Your task to perform on an android device: manage bookmarks in the chrome app Image 0: 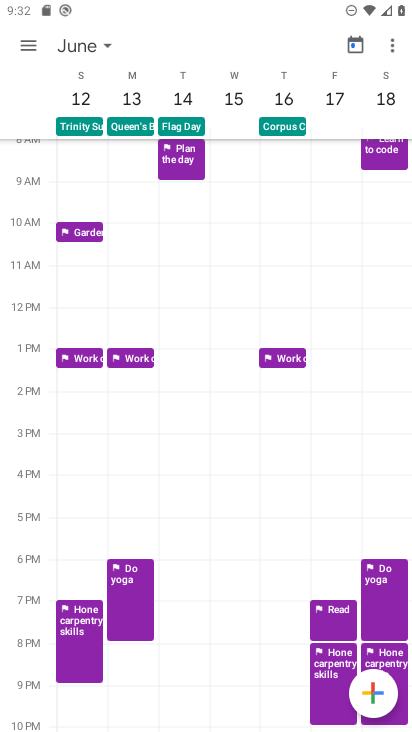
Step 0: press home button
Your task to perform on an android device: manage bookmarks in the chrome app Image 1: 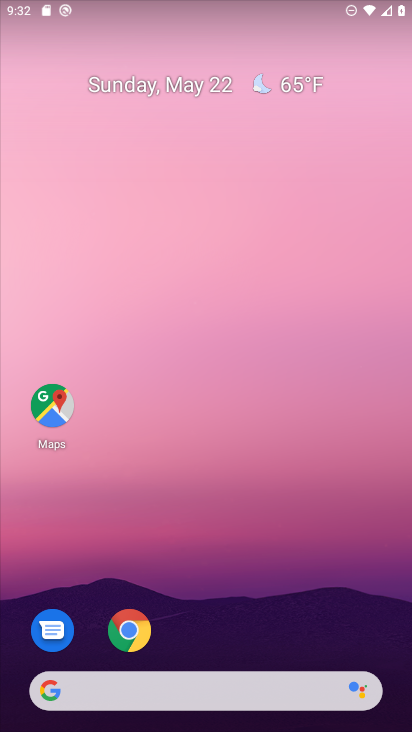
Step 1: click (129, 634)
Your task to perform on an android device: manage bookmarks in the chrome app Image 2: 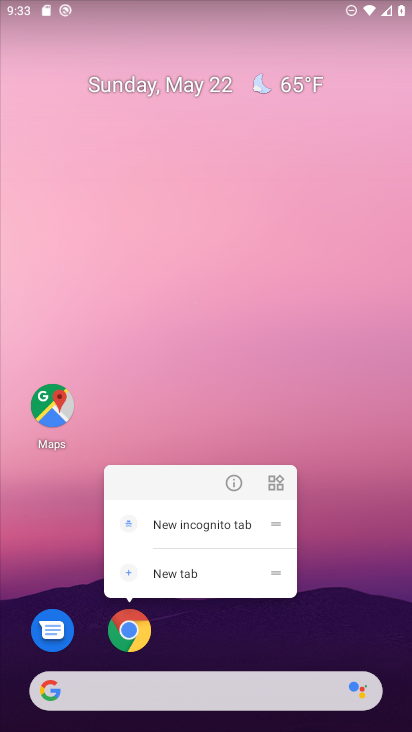
Step 2: click (127, 646)
Your task to perform on an android device: manage bookmarks in the chrome app Image 3: 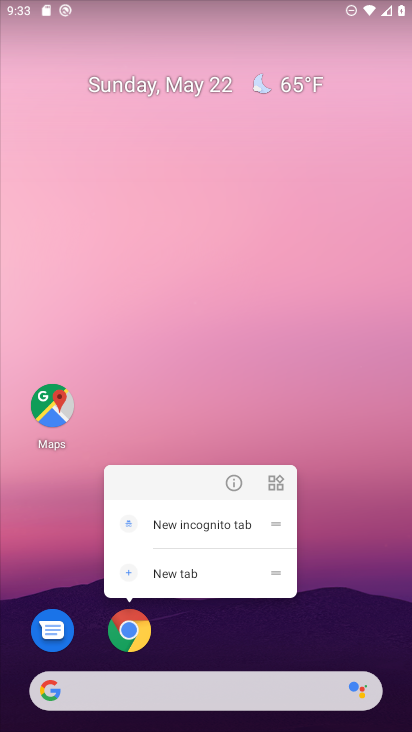
Step 3: click (128, 637)
Your task to perform on an android device: manage bookmarks in the chrome app Image 4: 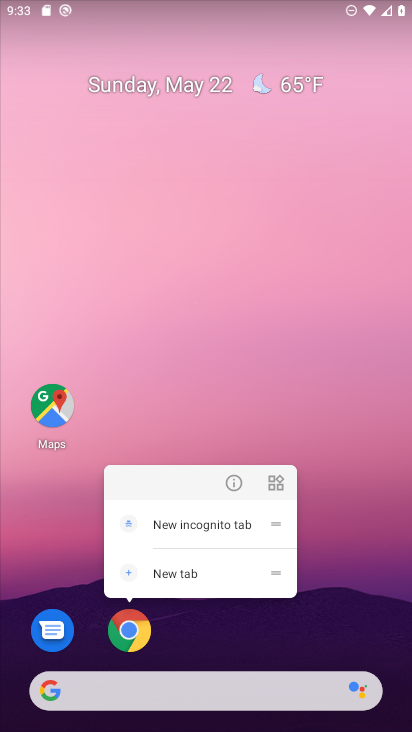
Step 4: click (134, 637)
Your task to perform on an android device: manage bookmarks in the chrome app Image 5: 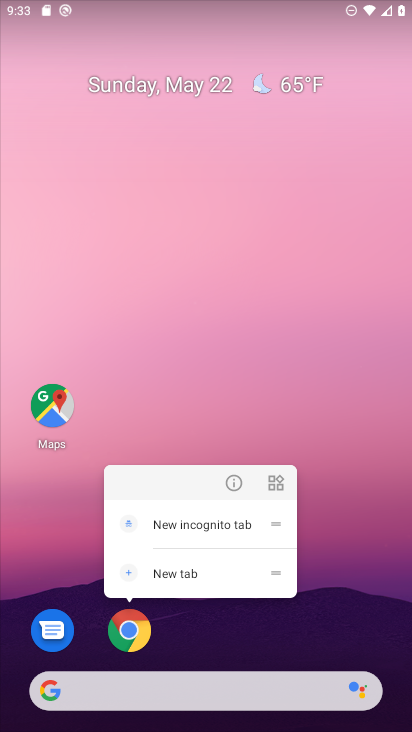
Step 5: click (138, 632)
Your task to perform on an android device: manage bookmarks in the chrome app Image 6: 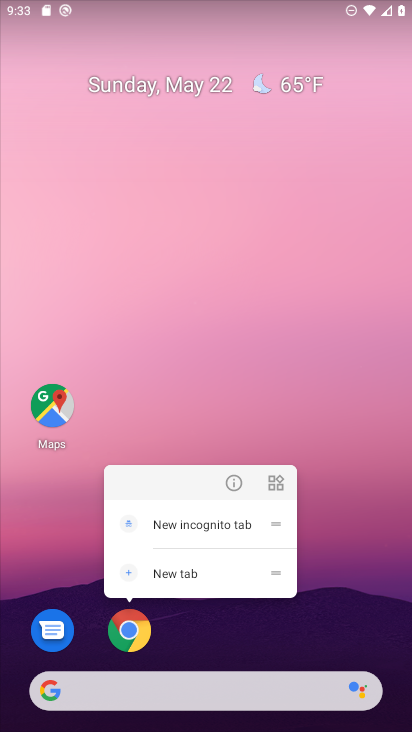
Step 6: click (128, 636)
Your task to perform on an android device: manage bookmarks in the chrome app Image 7: 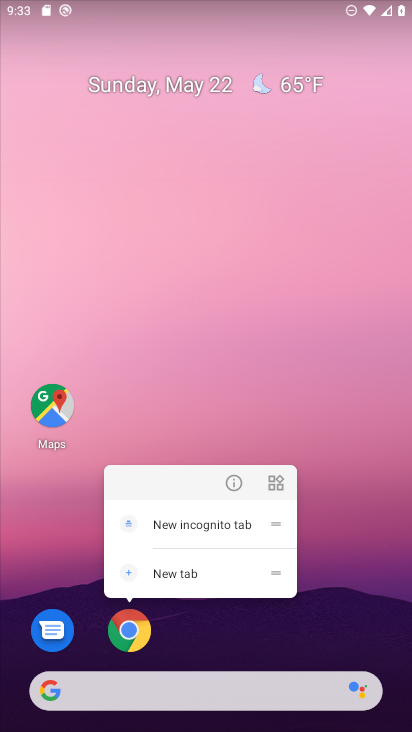
Step 7: click (134, 627)
Your task to perform on an android device: manage bookmarks in the chrome app Image 8: 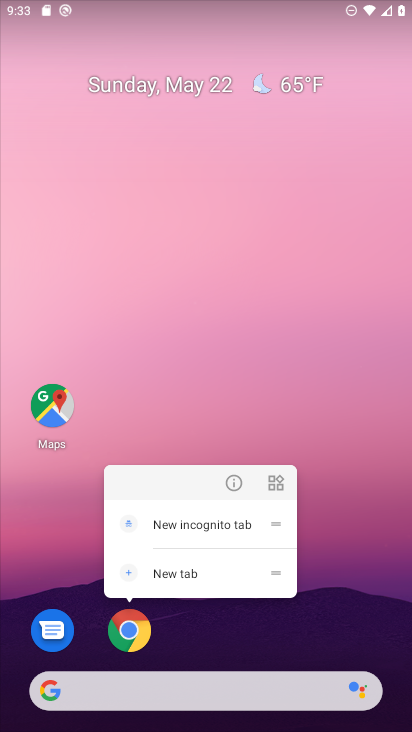
Step 8: click (135, 627)
Your task to perform on an android device: manage bookmarks in the chrome app Image 9: 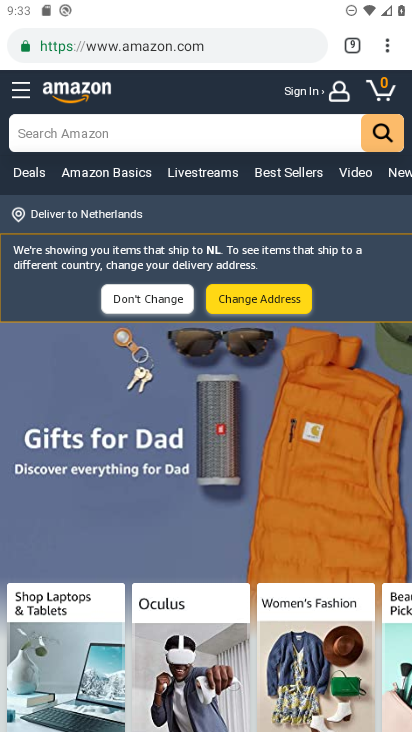
Step 9: drag from (388, 48) to (260, 178)
Your task to perform on an android device: manage bookmarks in the chrome app Image 10: 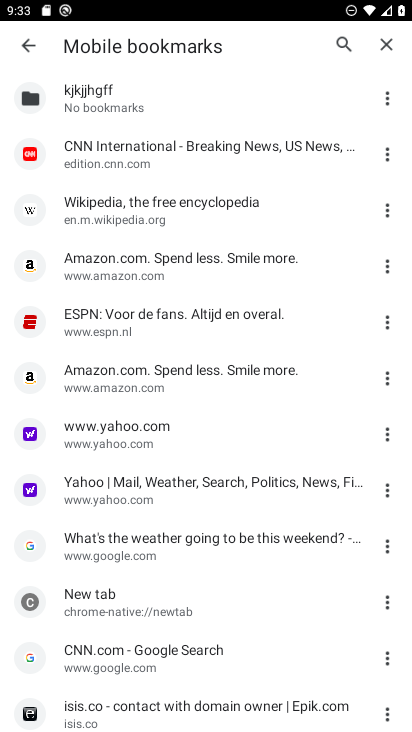
Step 10: click (387, 152)
Your task to perform on an android device: manage bookmarks in the chrome app Image 11: 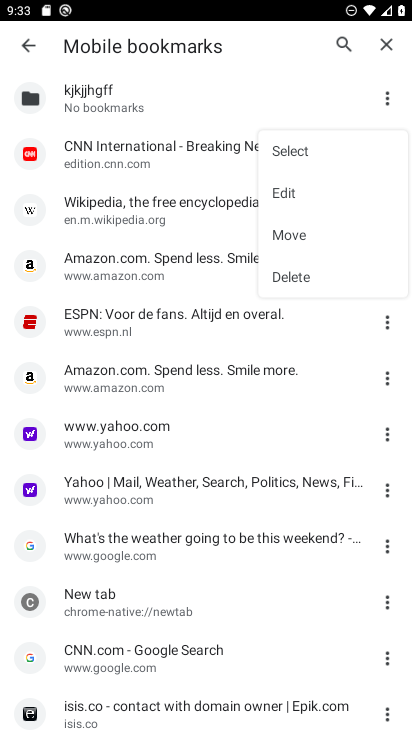
Step 11: click (300, 226)
Your task to perform on an android device: manage bookmarks in the chrome app Image 12: 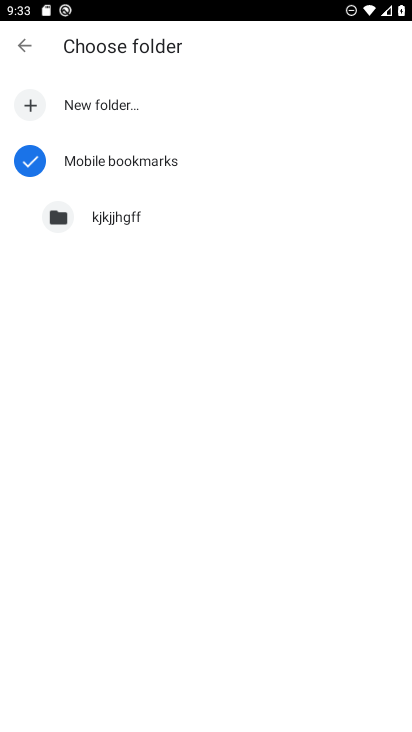
Step 12: click (109, 221)
Your task to perform on an android device: manage bookmarks in the chrome app Image 13: 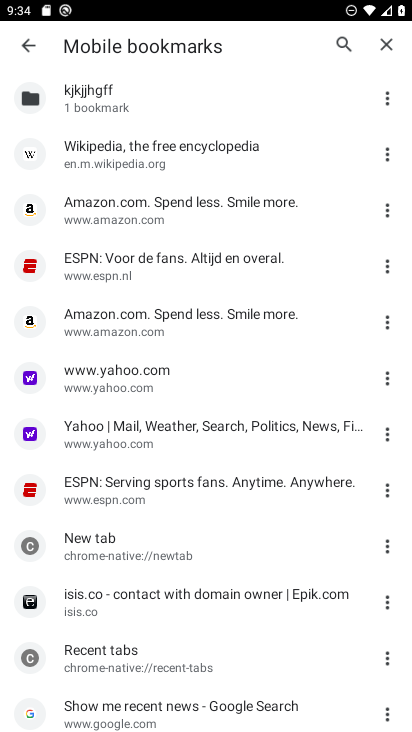
Step 13: task complete